Your task to perform on an android device: open sync settings in chrome Image 0: 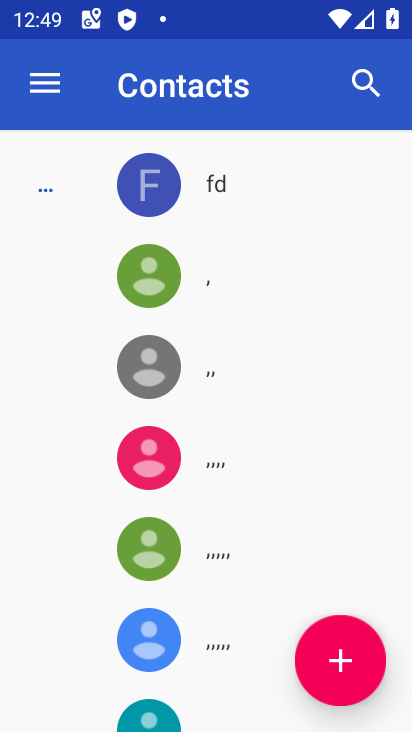
Step 0: press home button
Your task to perform on an android device: open sync settings in chrome Image 1: 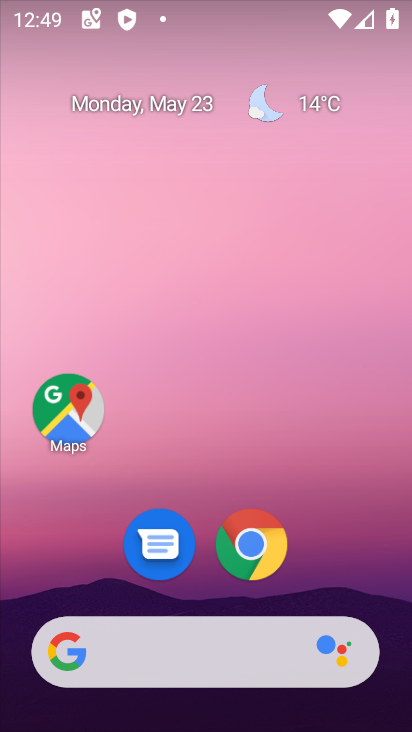
Step 1: click (253, 549)
Your task to perform on an android device: open sync settings in chrome Image 2: 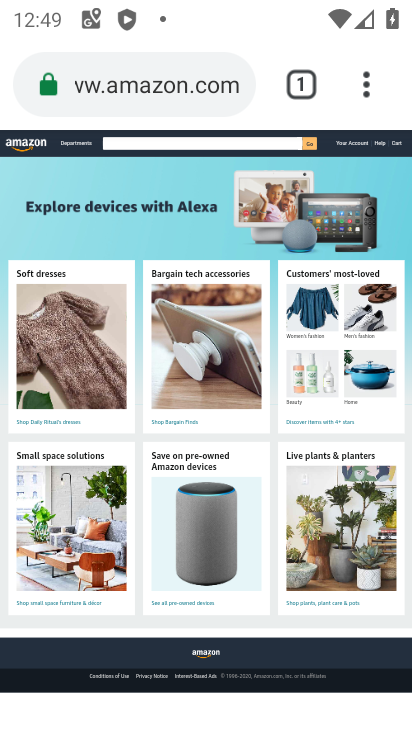
Step 2: drag from (364, 71) to (172, 565)
Your task to perform on an android device: open sync settings in chrome Image 3: 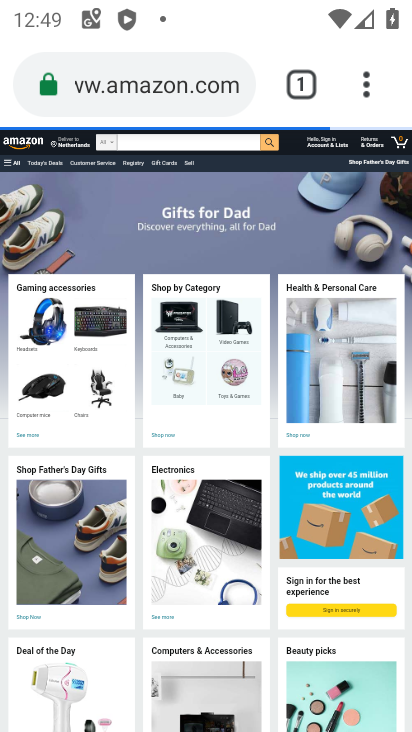
Step 3: drag from (370, 71) to (180, 604)
Your task to perform on an android device: open sync settings in chrome Image 4: 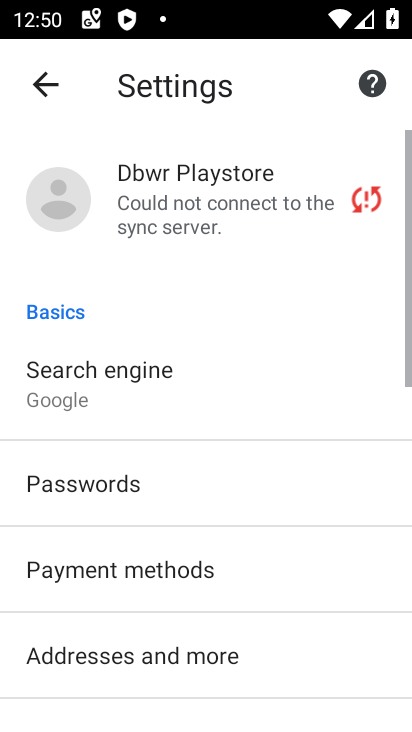
Step 4: click (185, 203)
Your task to perform on an android device: open sync settings in chrome Image 5: 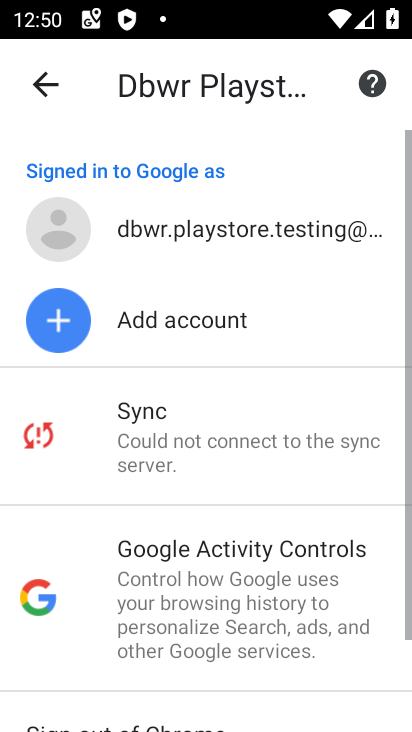
Step 5: click (174, 437)
Your task to perform on an android device: open sync settings in chrome Image 6: 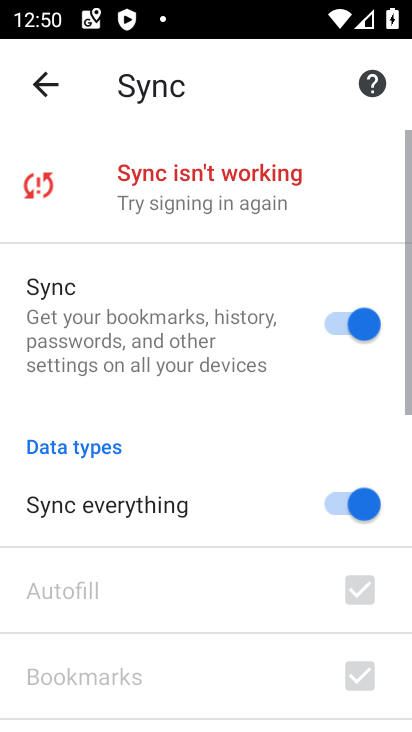
Step 6: task complete